Your task to perform on an android device: open a new tab in the chrome app Image 0: 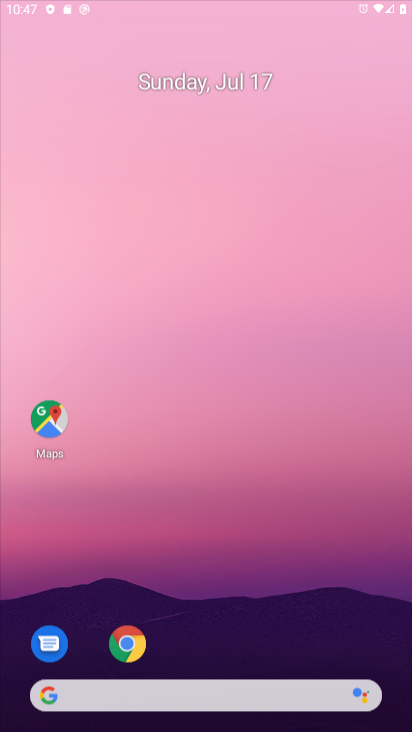
Step 0: drag from (313, 343) to (295, 5)
Your task to perform on an android device: open a new tab in the chrome app Image 1: 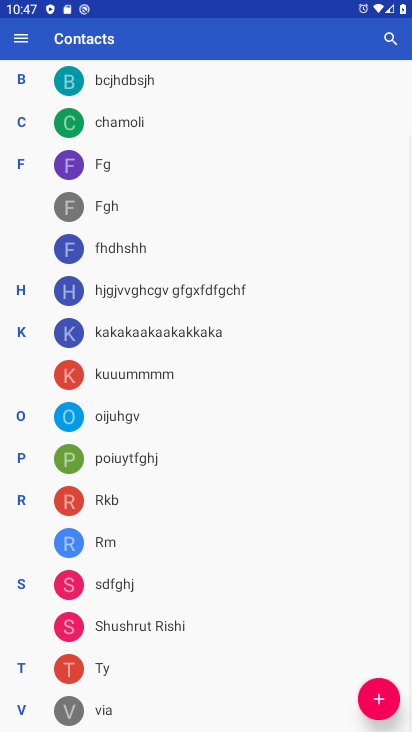
Step 1: press home button
Your task to perform on an android device: open a new tab in the chrome app Image 2: 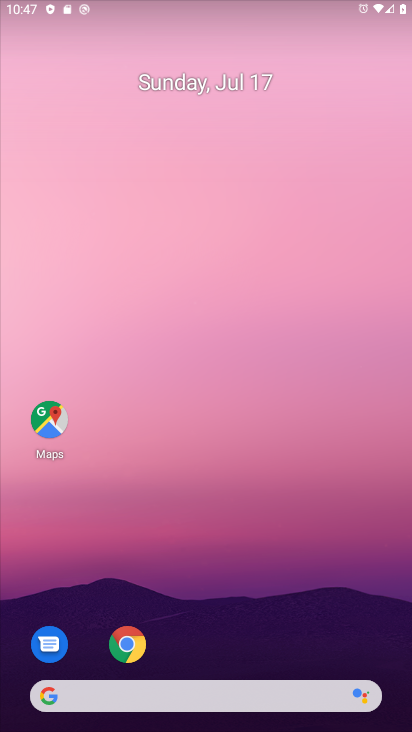
Step 2: drag from (295, 584) to (295, 15)
Your task to perform on an android device: open a new tab in the chrome app Image 3: 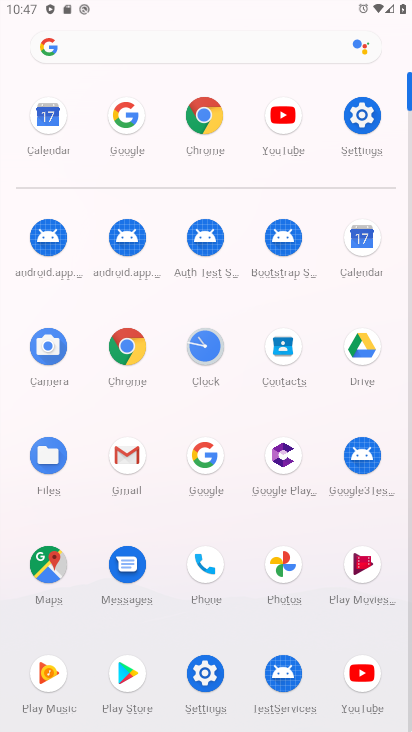
Step 3: click (203, 118)
Your task to perform on an android device: open a new tab in the chrome app Image 4: 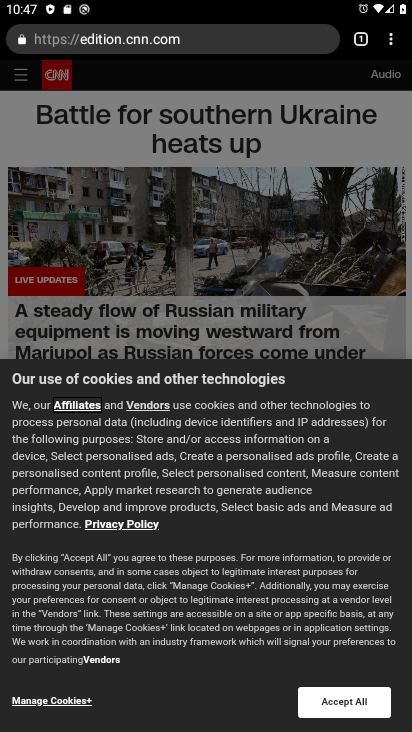
Step 4: task complete